Your task to perform on an android device: Go to Amazon Image 0: 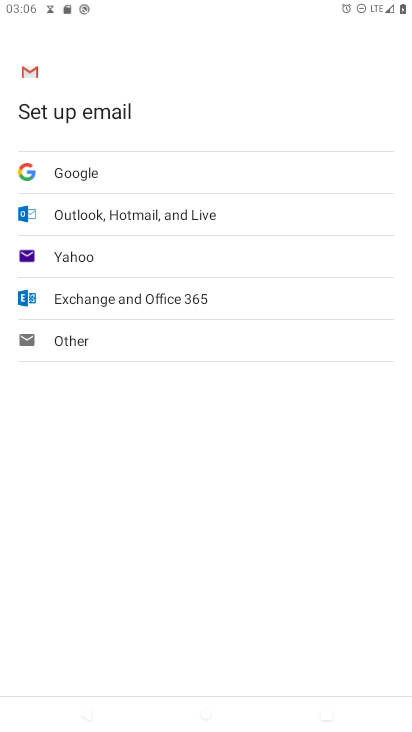
Step 0: press home button
Your task to perform on an android device: Go to Amazon Image 1: 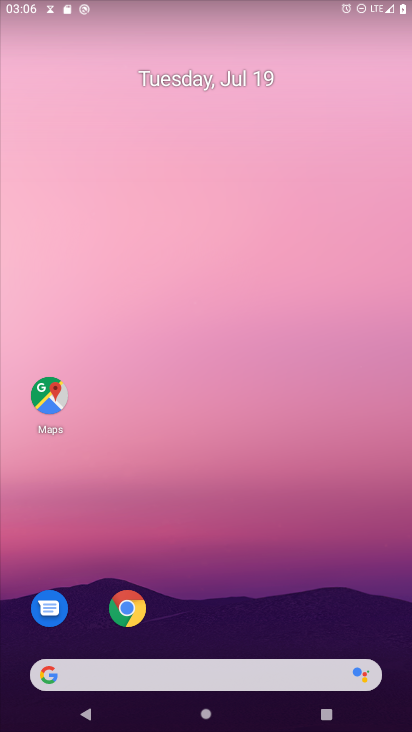
Step 1: drag from (227, 674) to (279, 112)
Your task to perform on an android device: Go to Amazon Image 2: 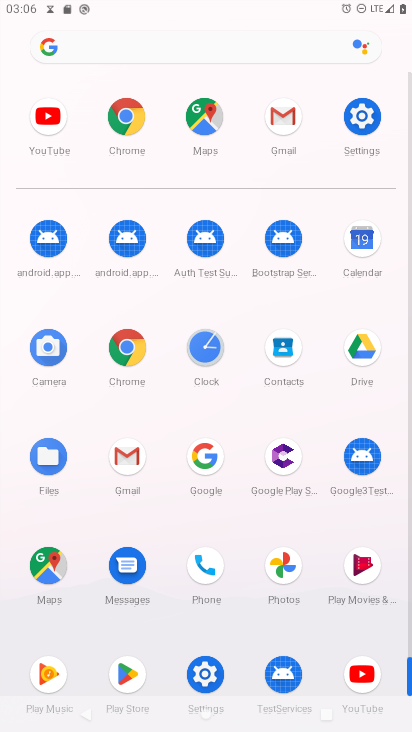
Step 2: click (140, 351)
Your task to perform on an android device: Go to Amazon Image 3: 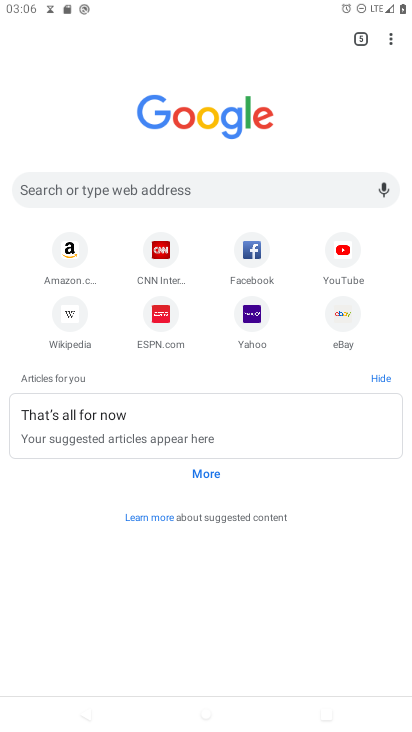
Step 3: click (74, 250)
Your task to perform on an android device: Go to Amazon Image 4: 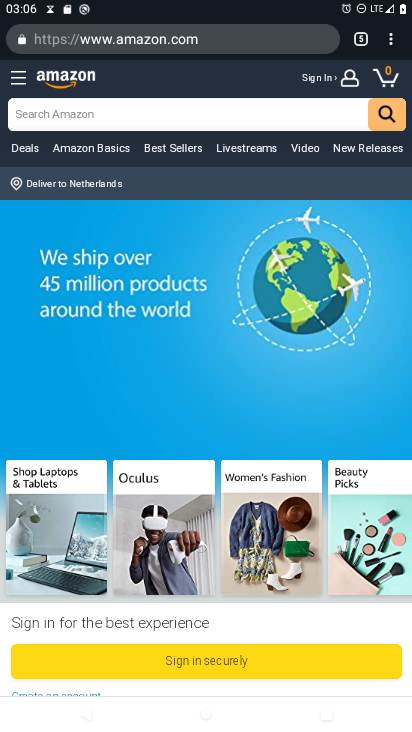
Step 4: task complete